Your task to perform on an android device: Open calendar and show me the third week of next month Image 0: 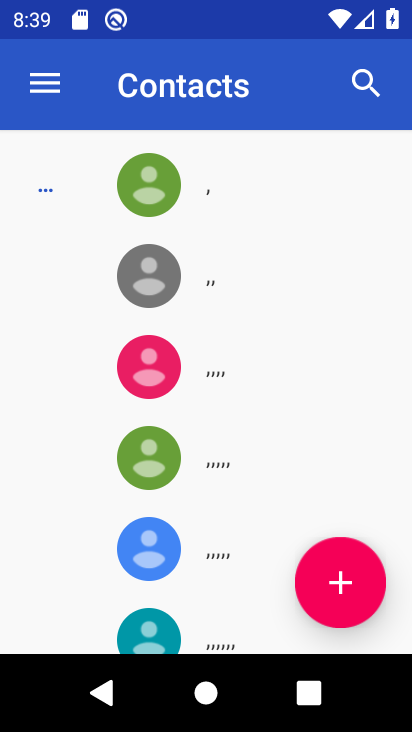
Step 0: press home button
Your task to perform on an android device: Open calendar and show me the third week of next month Image 1: 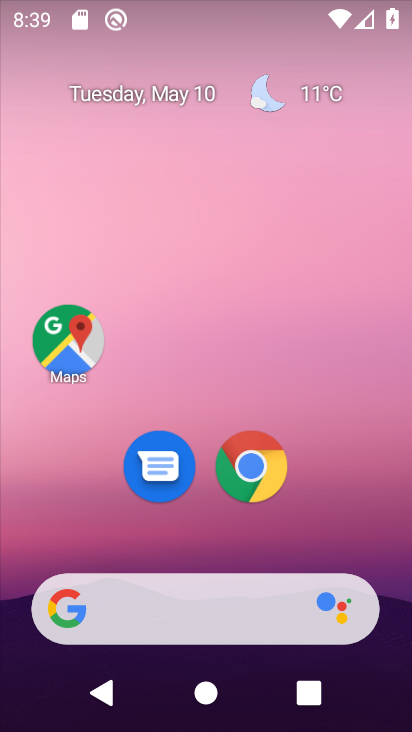
Step 1: drag from (206, 545) to (255, 40)
Your task to perform on an android device: Open calendar and show me the third week of next month Image 2: 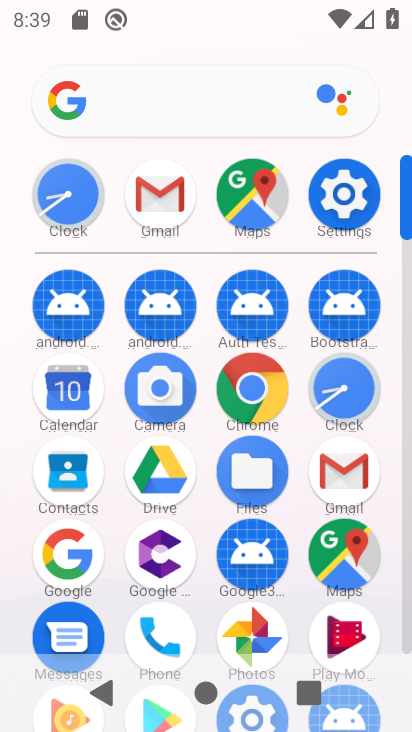
Step 2: click (62, 398)
Your task to perform on an android device: Open calendar and show me the third week of next month Image 3: 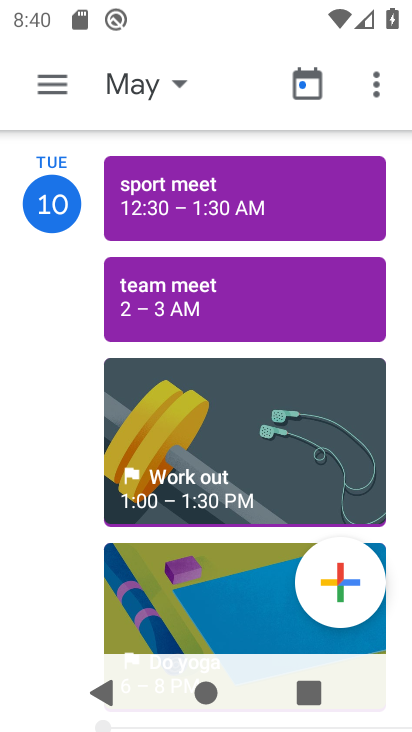
Step 3: click (67, 82)
Your task to perform on an android device: Open calendar and show me the third week of next month Image 4: 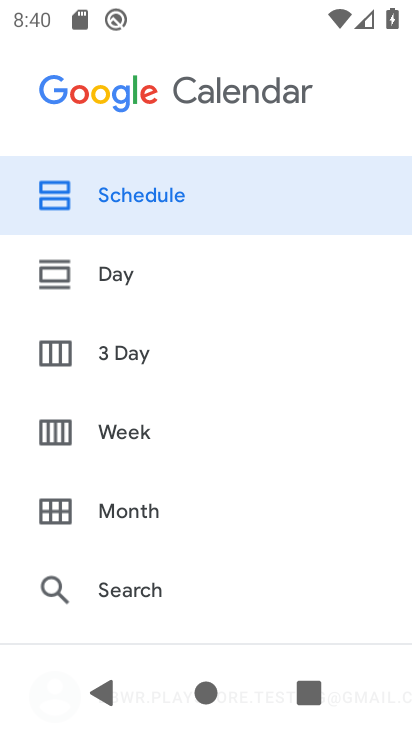
Step 4: click (127, 432)
Your task to perform on an android device: Open calendar and show me the third week of next month Image 5: 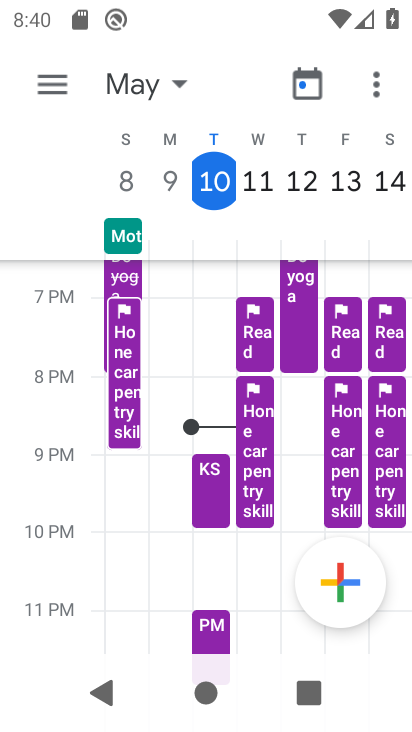
Step 5: task complete